Your task to perform on an android device: turn on showing notifications on the lock screen Image 0: 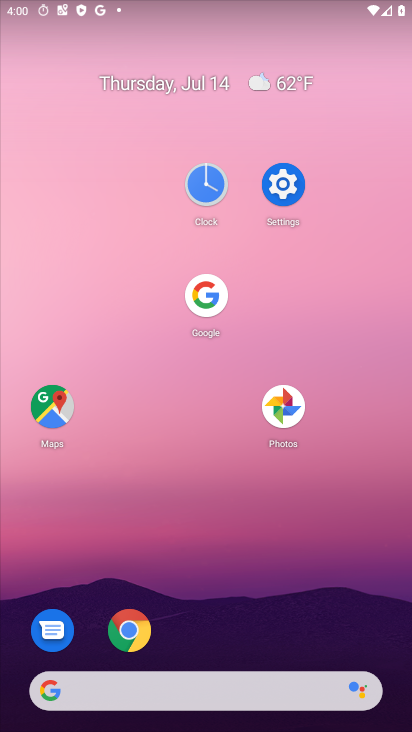
Step 0: click (295, 184)
Your task to perform on an android device: turn on showing notifications on the lock screen Image 1: 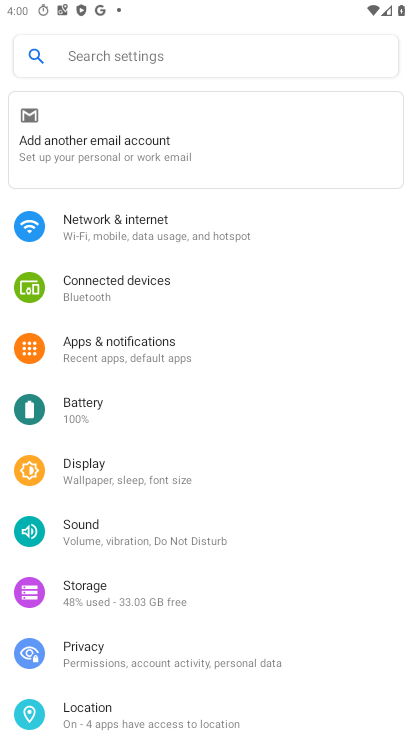
Step 1: click (147, 352)
Your task to perform on an android device: turn on showing notifications on the lock screen Image 2: 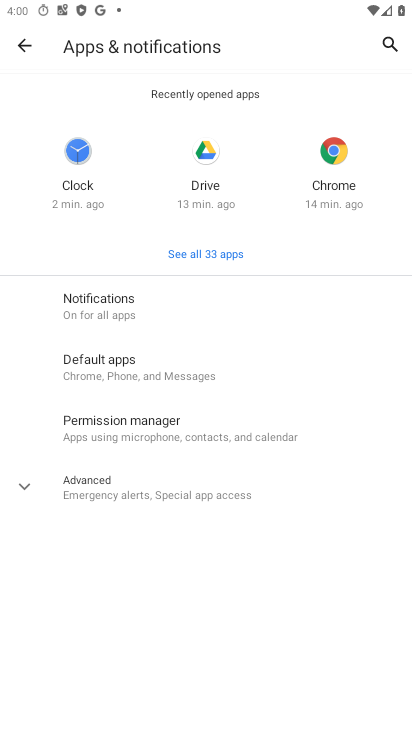
Step 2: click (137, 307)
Your task to perform on an android device: turn on showing notifications on the lock screen Image 3: 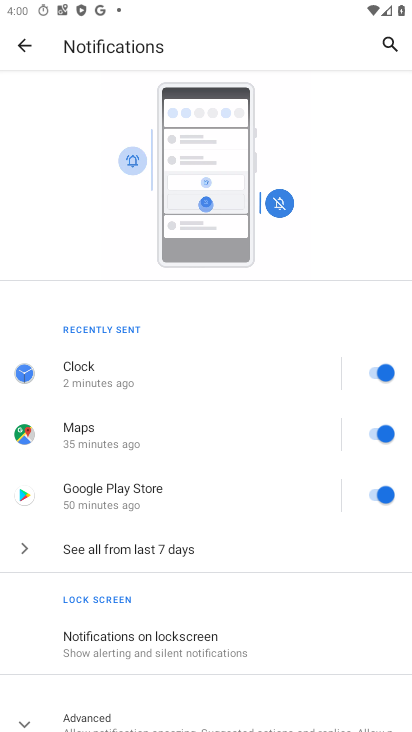
Step 3: click (176, 635)
Your task to perform on an android device: turn on showing notifications on the lock screen Image 4: 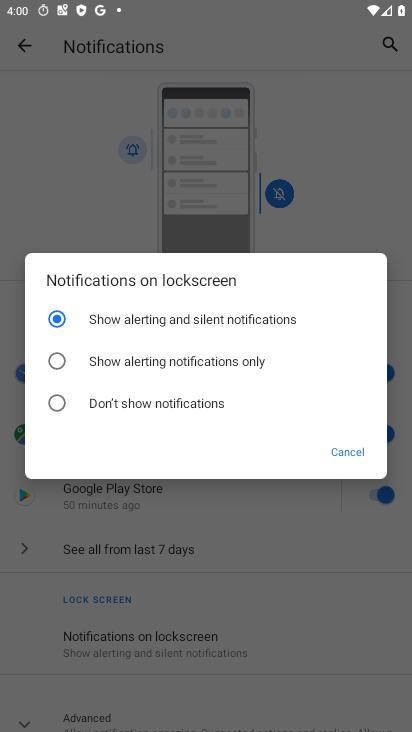
Step 4: task complete